Your task to perform on an android device: change your default location settings in chrome Image 0: 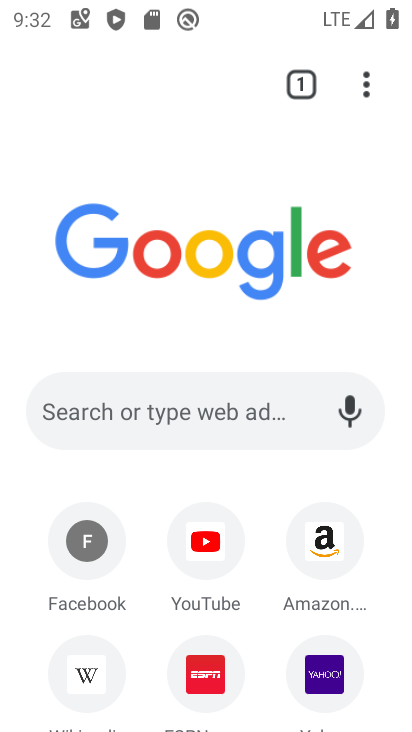
Step 0: click (372, 84)
Your task to perform on an android device: change your default location settings in chrome Image 1: 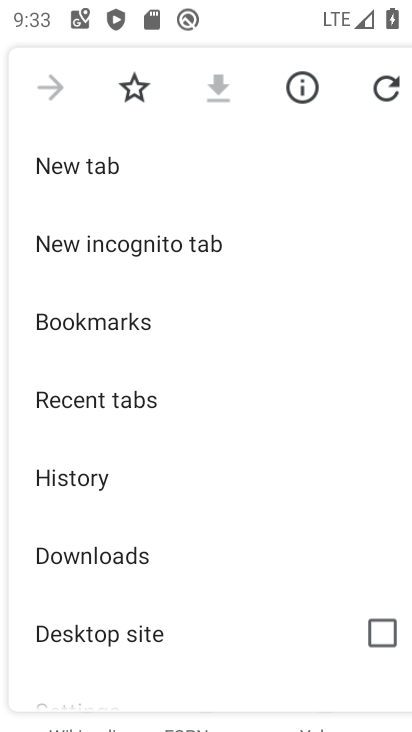
Step 1: drag from (94, 616) to (349, 5)
Your task to perform on an android device: change your default location settings in chrome Image 2: 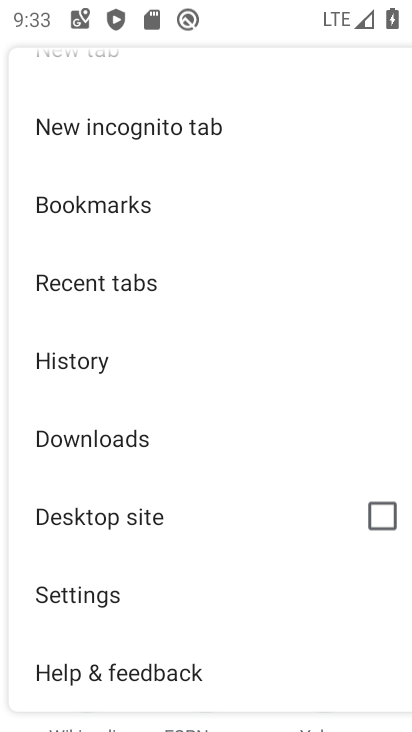
Step 2: drag from (214, 151) to (208, 469)
Your task to perform on an android device: change your default location settings in chrome Image 3: 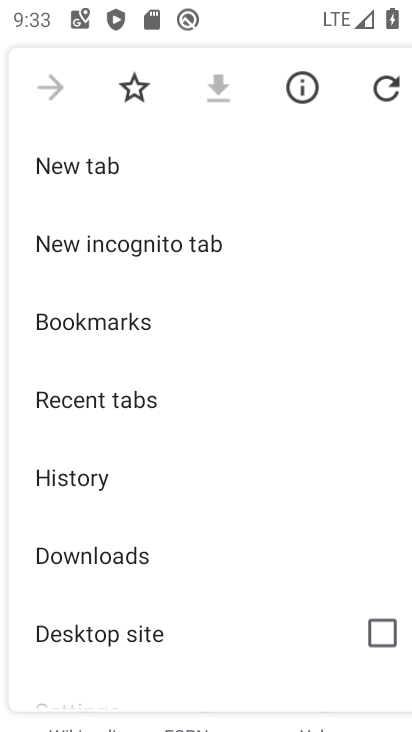
Step 3: drag from (160, 602) to (184, 369)
Your task to perform on an android device: change your default location settings in chrome Image 4: 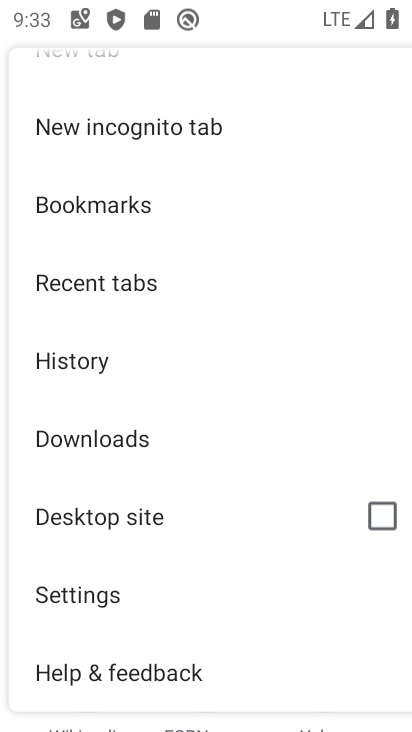
Step 4: click (129, 598)
Your task to perform on an android device: change your default location settings in chrome Image 5: 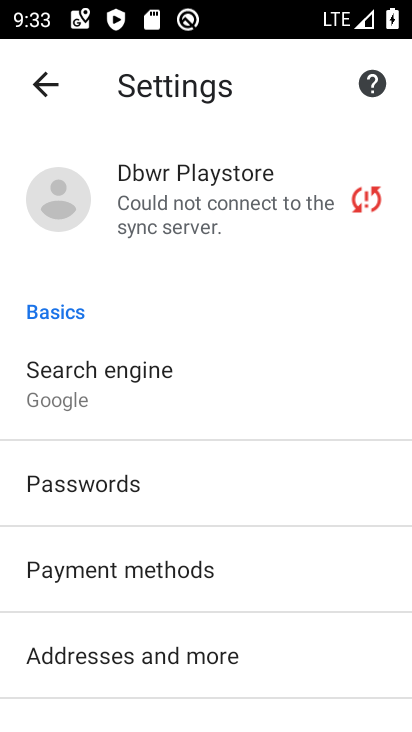
Step 5: drag from (126, 627) to (235, 257)
Your task to perform on an android device: change your default location settings in chrome Image 6: 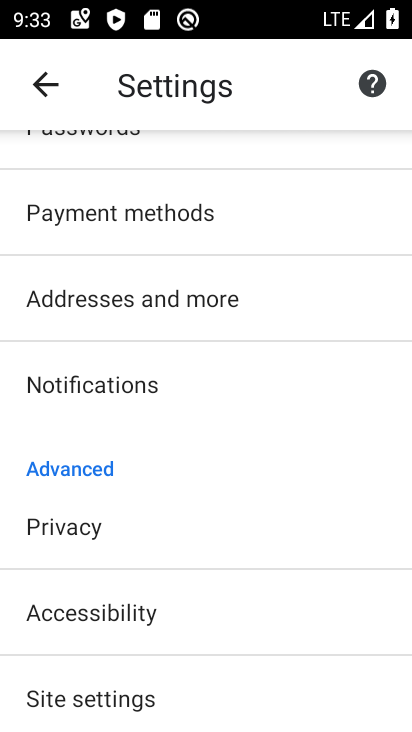
Step 6: drag from (113, 668) to (177, 180)
Your task to perform on an android device: change your default location settings in chrome Image 7: 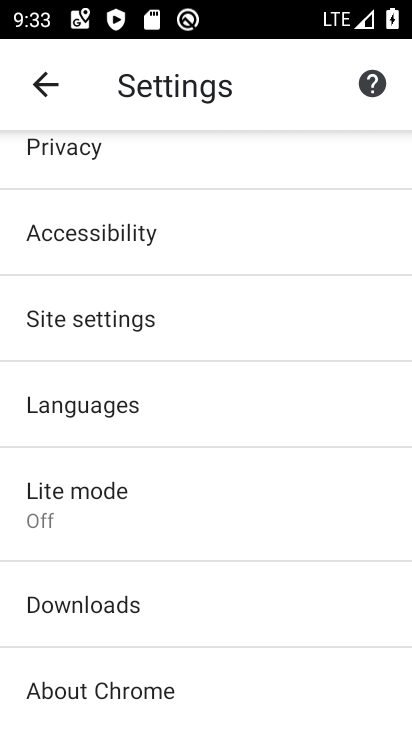
Step 7: drag from (112, 625) to (226, 194)
Your task to perform on an android device: change your default location settings in chrome Image 8: 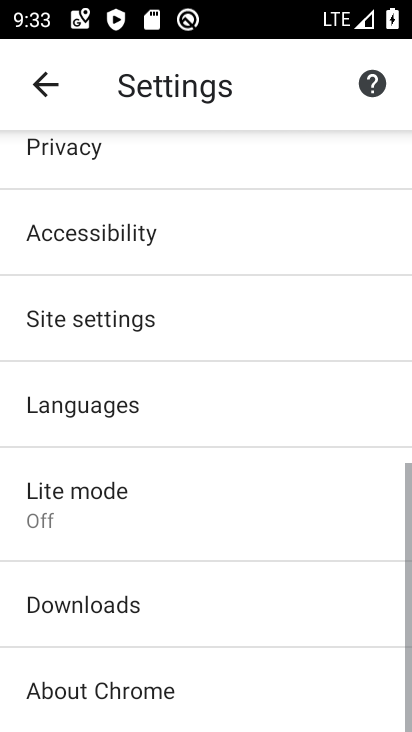
Step 8: click (103, 316)
Your task to perform on an android device: change your default location settings in chrome Image 9: 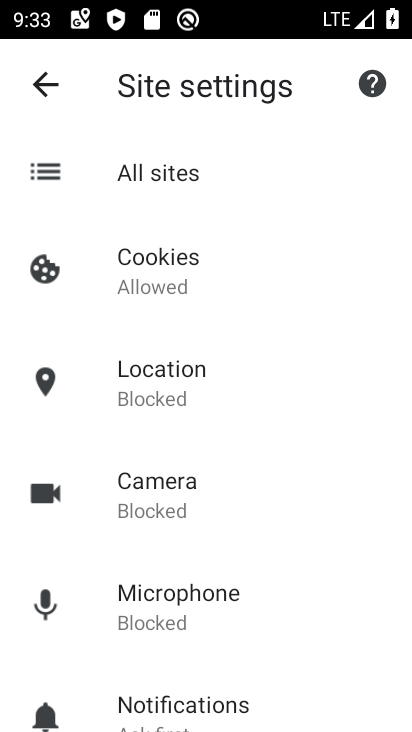
Step 9: click (234, 403)
Your task to perform on an android device: change your default location settings in chrome Image 10: 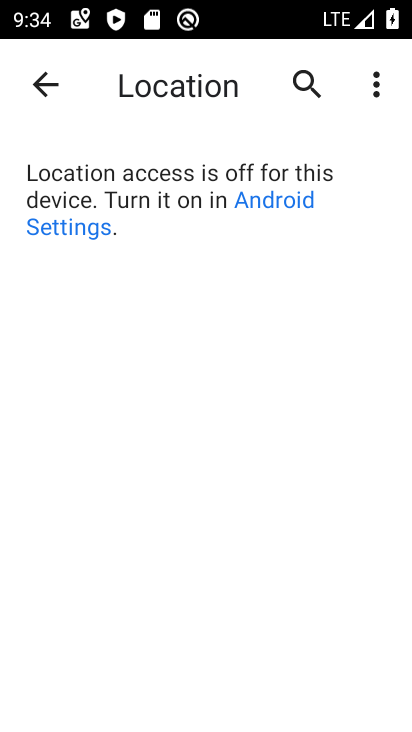
Step 10: task complete